Your task to perform on an android device: toggle javascript in the chrome app Image 0: 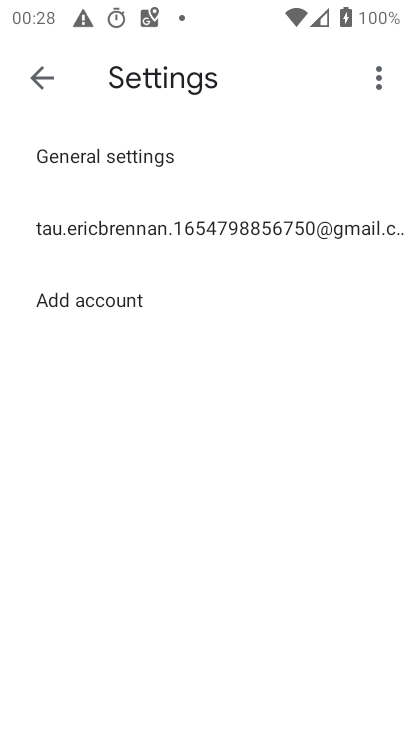
Step 0: click (181, 81)
Your task to perform on an android device: toggle javascript in the chrome app Image 1: 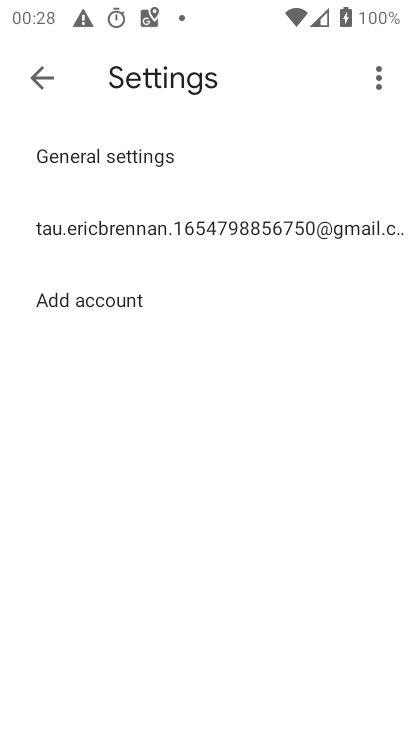
Step 1: click (37, 70)
Your task to perform on an android device: toggle javascript in the chrome app Image 2: 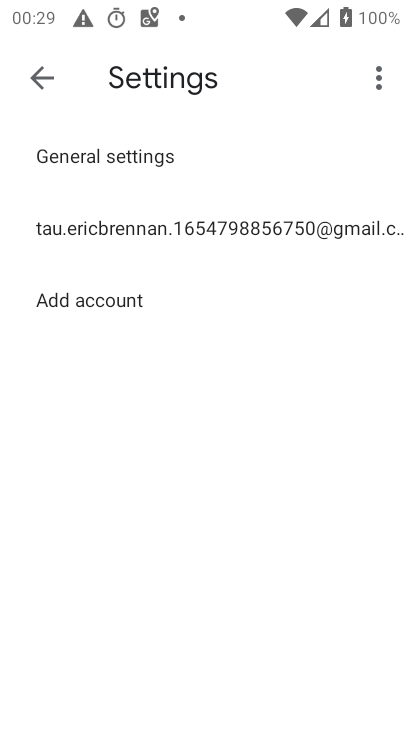
Step 2: click (41, 81)
Your task to perform on an android device: toggle javascript in the chrome app Image 3: 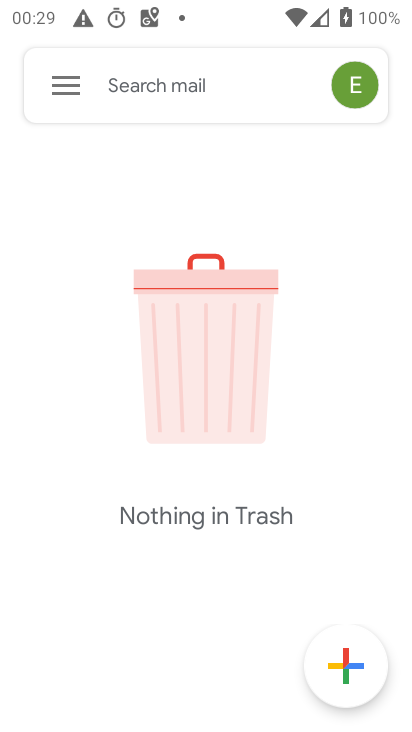
Step 3: press back button
Your task to perform on an android device: toggle javascript in the chrome app Image 4: 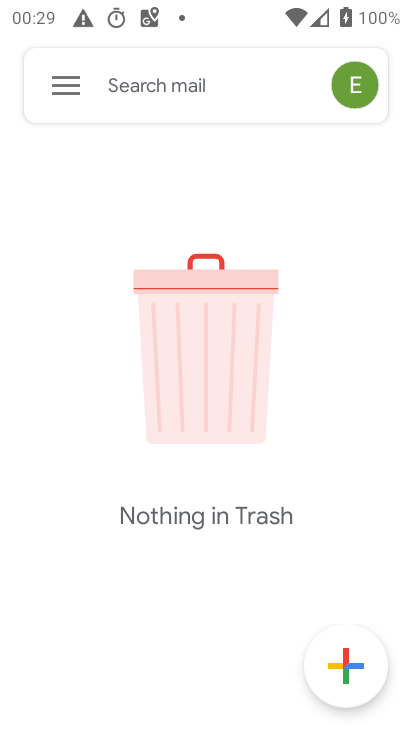
Step 4: press back button
Your task to perform on an android device: toggle javascript in the chrome app Image 5: 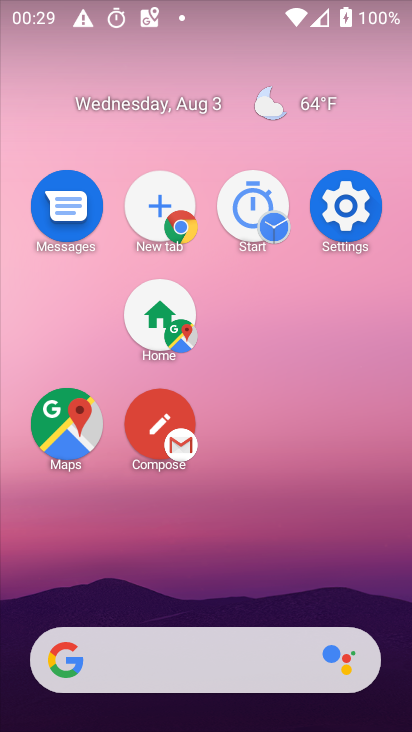
Step 5: drag from (252, 367) to (171, 87)
Your task to perform on an android device: toggle javascript in the chrome app Image 6: 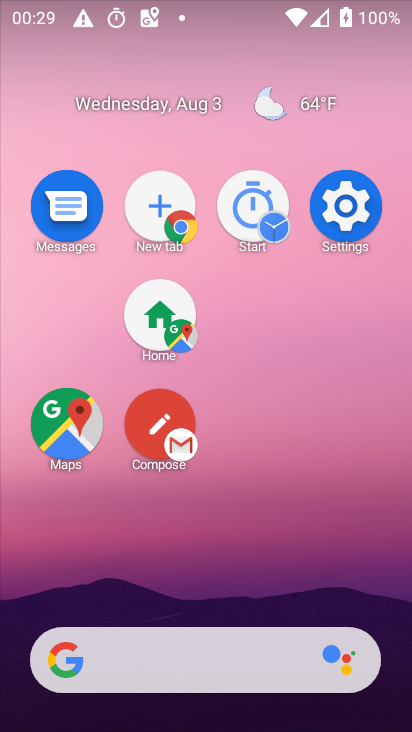
Step 6: drag from (230, 440) to (219, 193)
Your task to perform on an android device: toggle javascript in the chrome app Image 7: 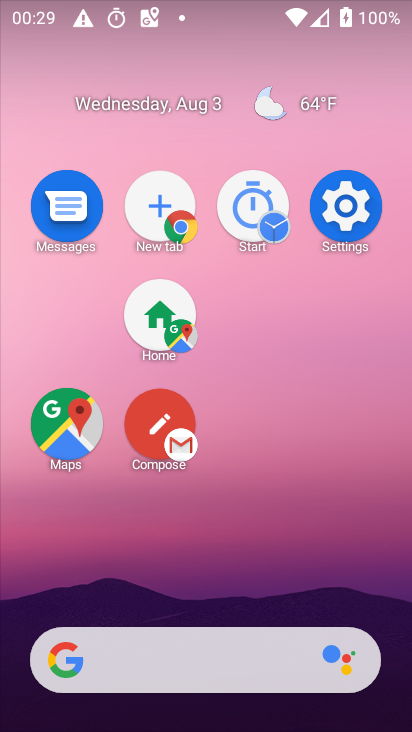
Step 7: drag from (227, 547) to (183, 190)
Your task to perform on an android device: toggle javascript in the chrome app Image 8: 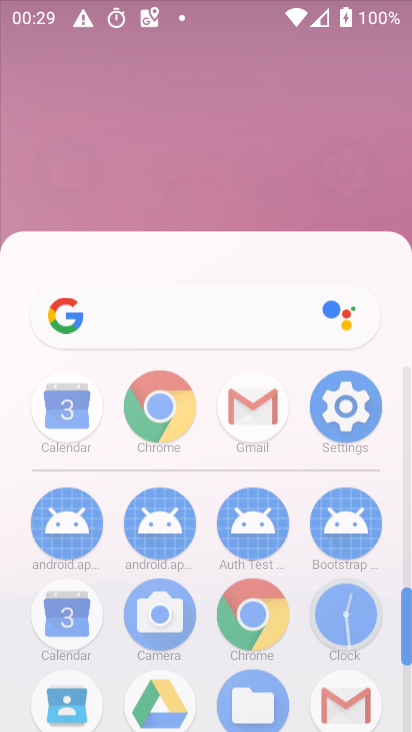
Step 8: drag from (218, 181) to (207, 127)
Your task to perform on an android device: toggle javascript in the chrome app Image 9: 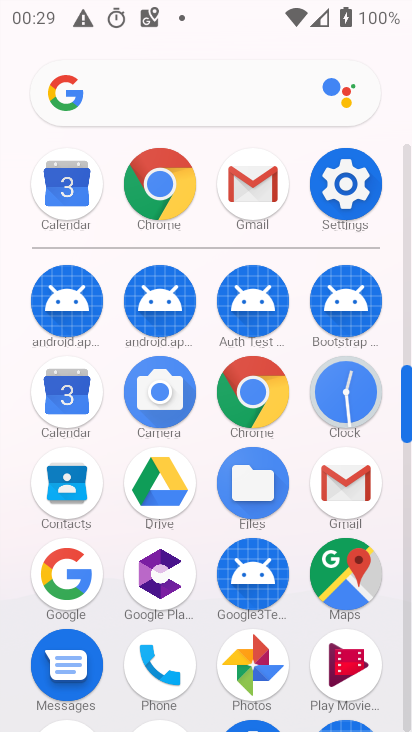
Step 9: drag from (265, 478) to (237, 110)
Your task to perform on an android device: toggle javascript in the chrome app Image 10: 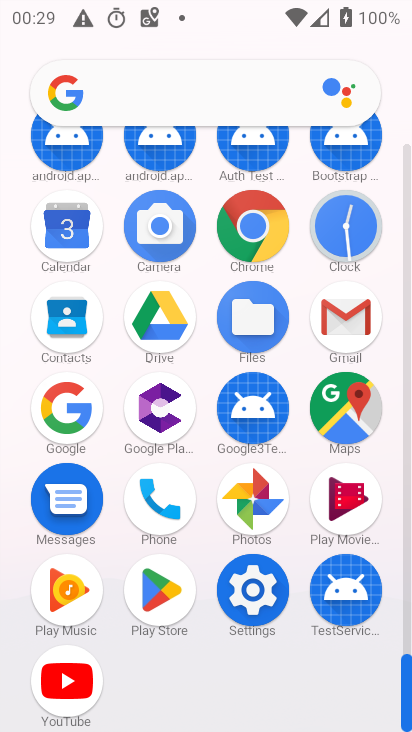
Step 10: click (245, 233)
Your task to perform on an android device: toggle javascript in the chrome app Image 11: 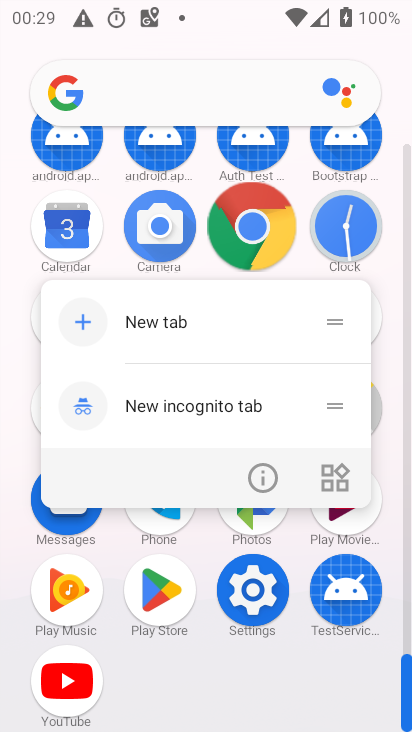
Step 11: click (245, 232)
Your task to perform on an android device: toggle javascript in the chrome app Image 12: 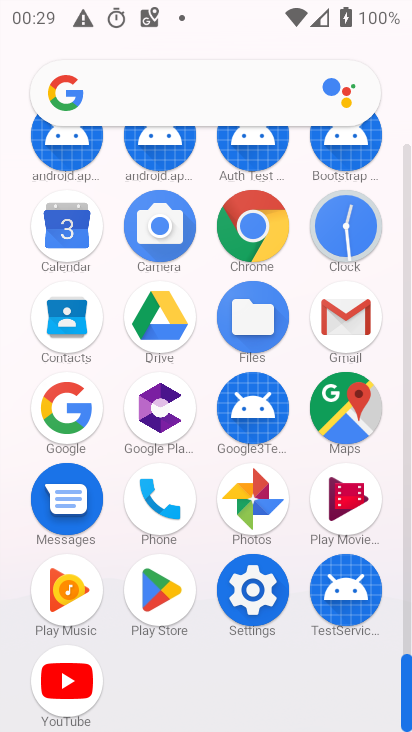
Step 12: click (248, 227)
Your task to perform on an android device: toggle javascript in the chrome app Image 13: 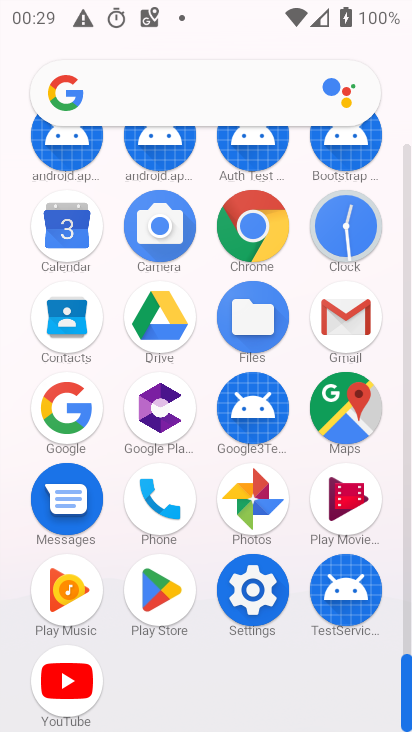
Step 13: click (250, 228)
Your task to perform on an android device: toggle javascript in the chrome app Image 14: 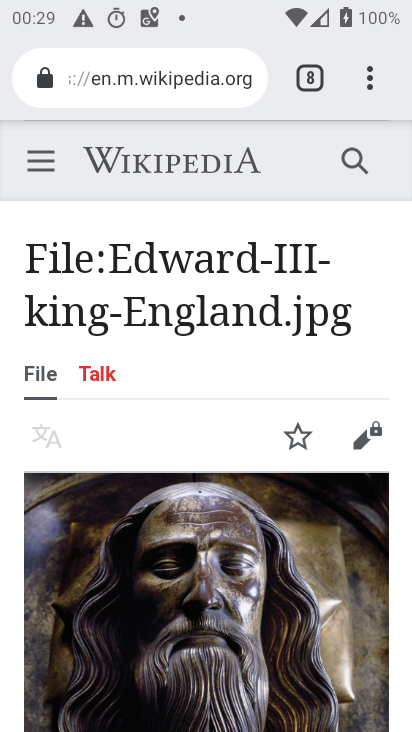
Step 14: drag from (364, 70) to (78, 621)
Your task to perform on an android device: toggle javascript in the chrome app Image 15: 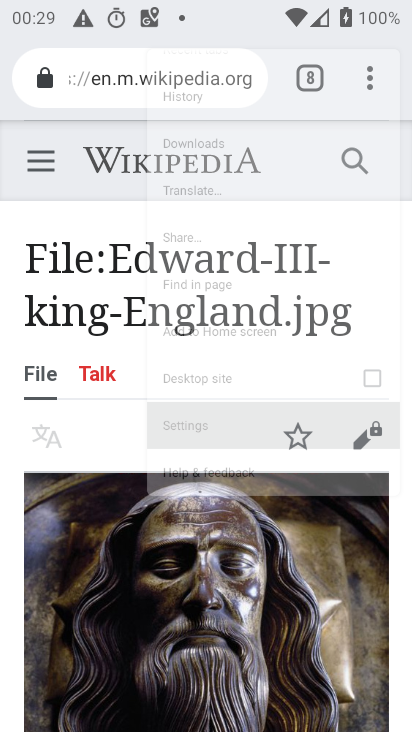
Step 15: click (84, 626)
Your task to perform on an android device: toggle javascript in the chrome app Image 16: 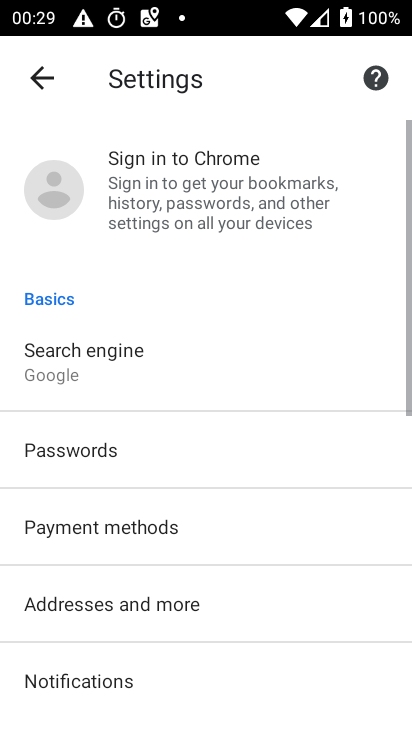
Step 16: drag from (149, 649) to (80, 183)
Your task to perform on an android device: toggle javascript in the chrome app Image 17: 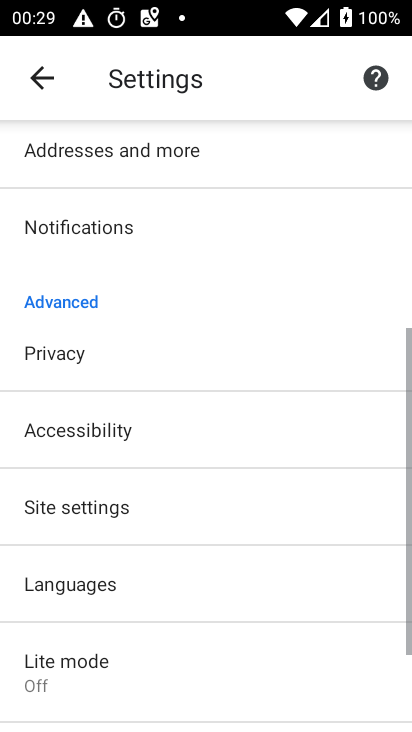
Step 17: drag from (245, 328) to (239, 262)
Your task to perform on an android device: toggle javascript in the chrome app Image 18: 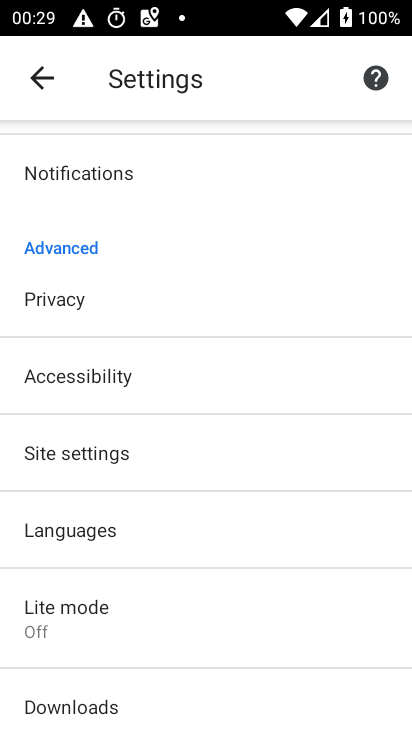
Step 18: click (58, 451)
Your task to perform on an android device: toggle javascript in the chrome app Image 19: 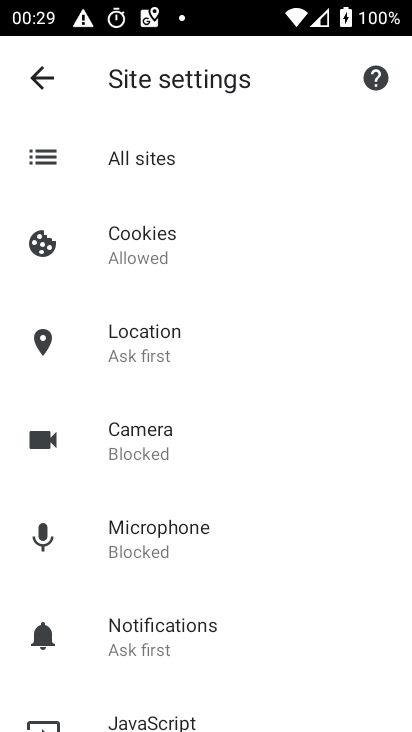
Step 19: click (171, 721)
Your task to perform on an android device: toggle javascript in the chrome app Image 20: 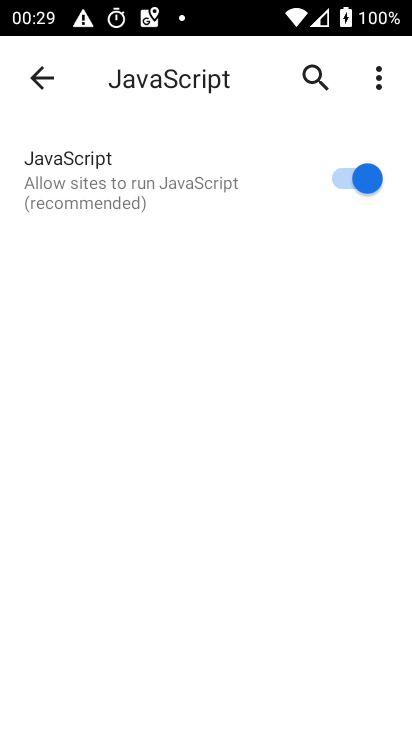
Step 20: task complete